Your task to perform on an android device: open app "WhatsApp Messenger" (install if not already installed) Image 0: 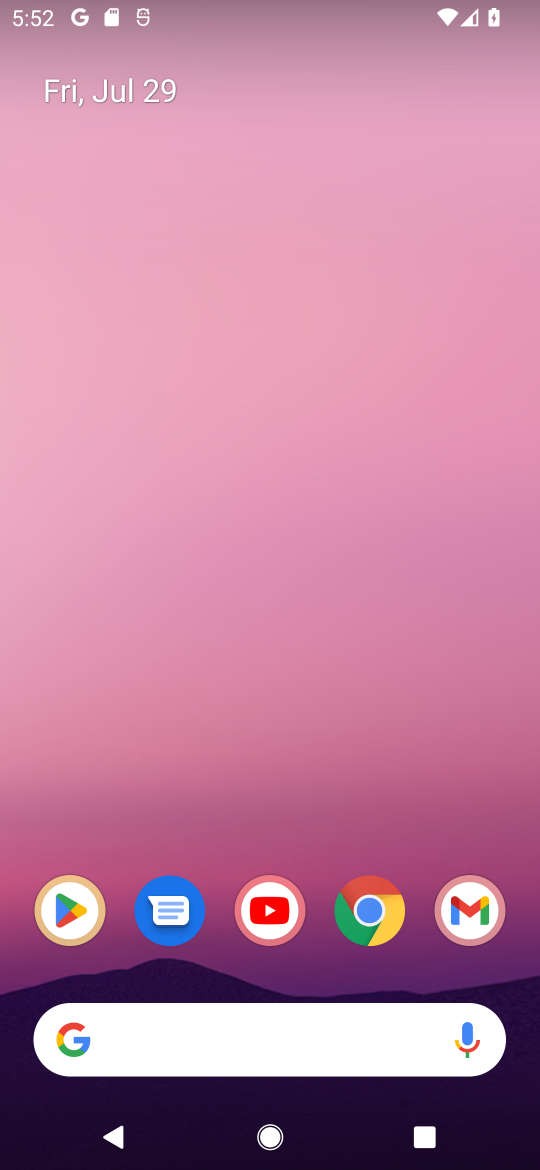
Step 0: click (86, 911)
Your task to perform on an android device: open app "WhatsApp Messenger" (install if not already installed) Image 1: 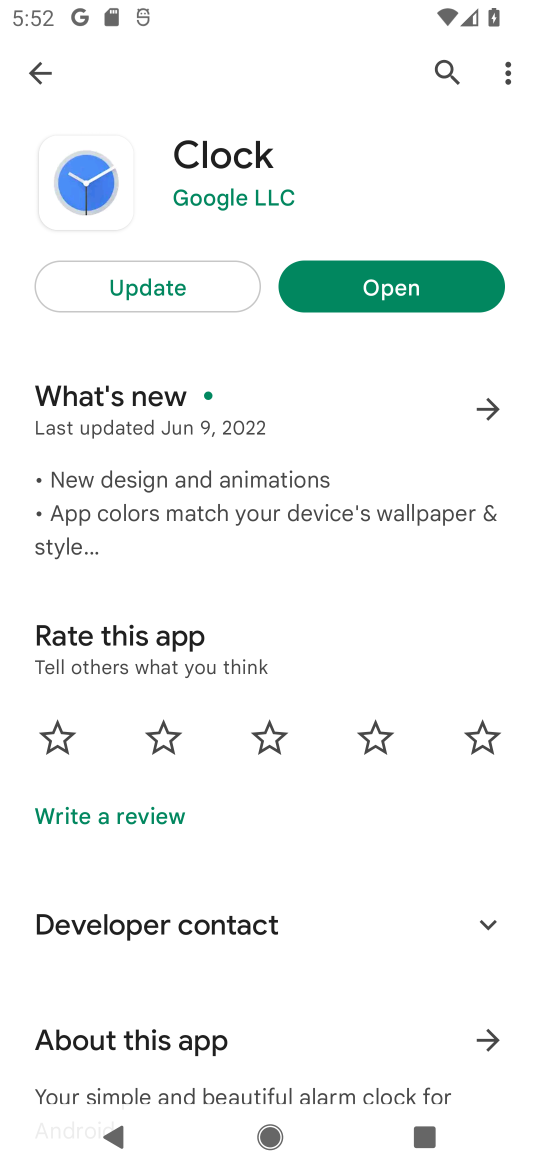
Step 1: click (443, 67)
Your task to perform on an android device: open app "WhatsApp Messenger" (install if not already installed) Image 2: 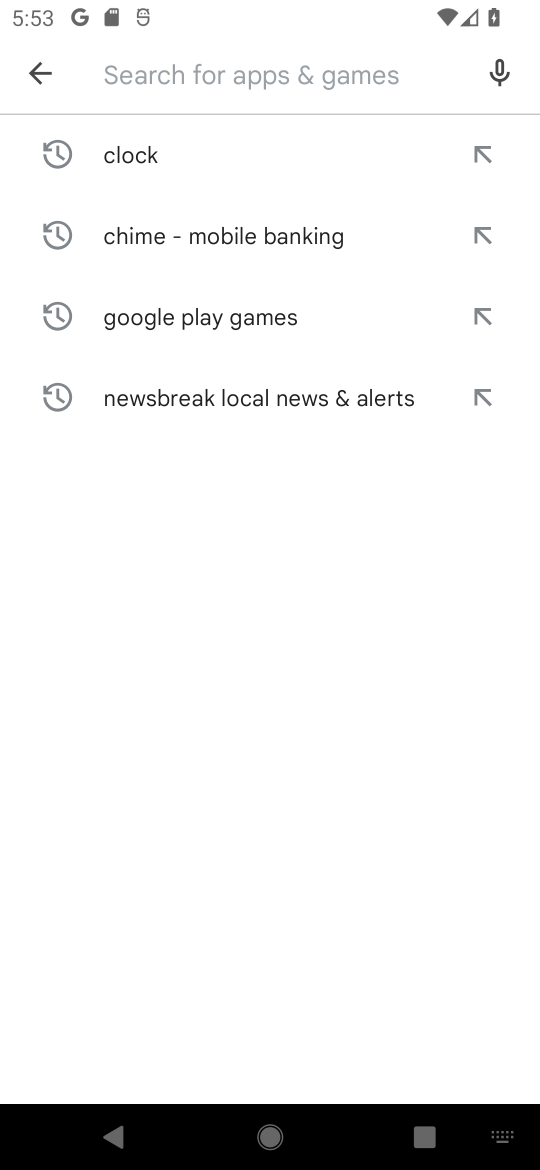
Step 2: type "whatsapp messenger"
Your task to perform on an android device: open app "WhatsApp Messenger" (install if not already installed) Image 3: 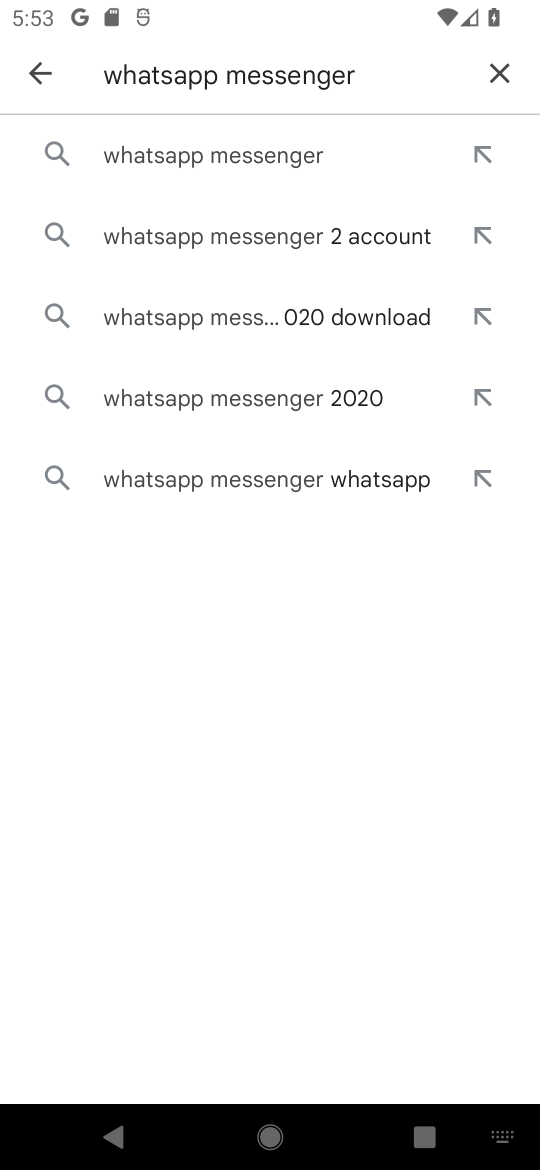
Step 3: click (286, 141)
Your task to perform on an android device: open app "WhatsApp Messenger" (install if not already installed) Image 4: 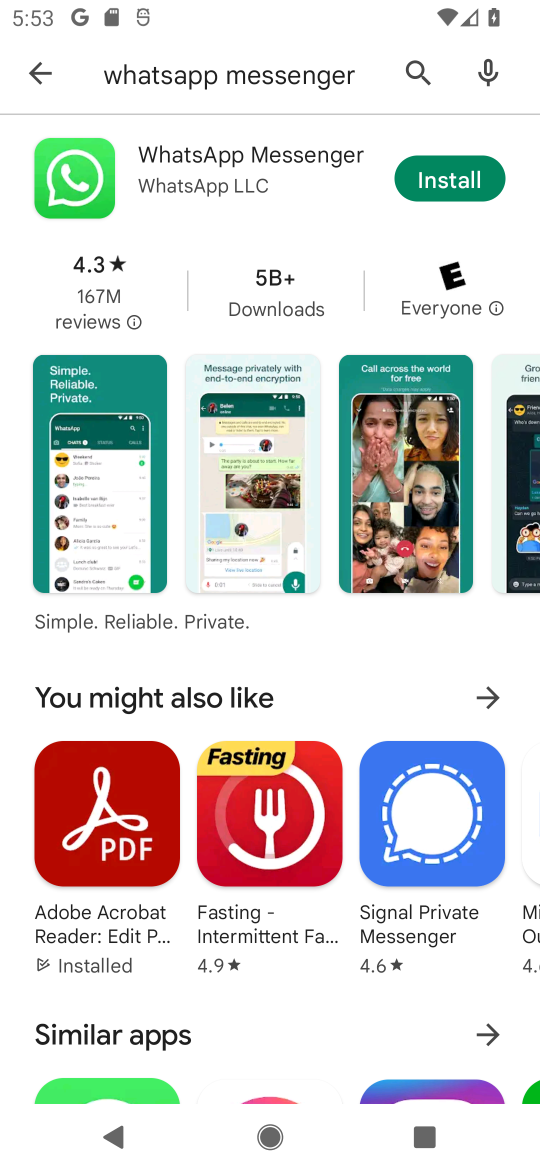
Step 4: click (286, 141)
Your task to perform on an android device: open app "WhatsApp Messenger" (install if not already installed) Image 5: 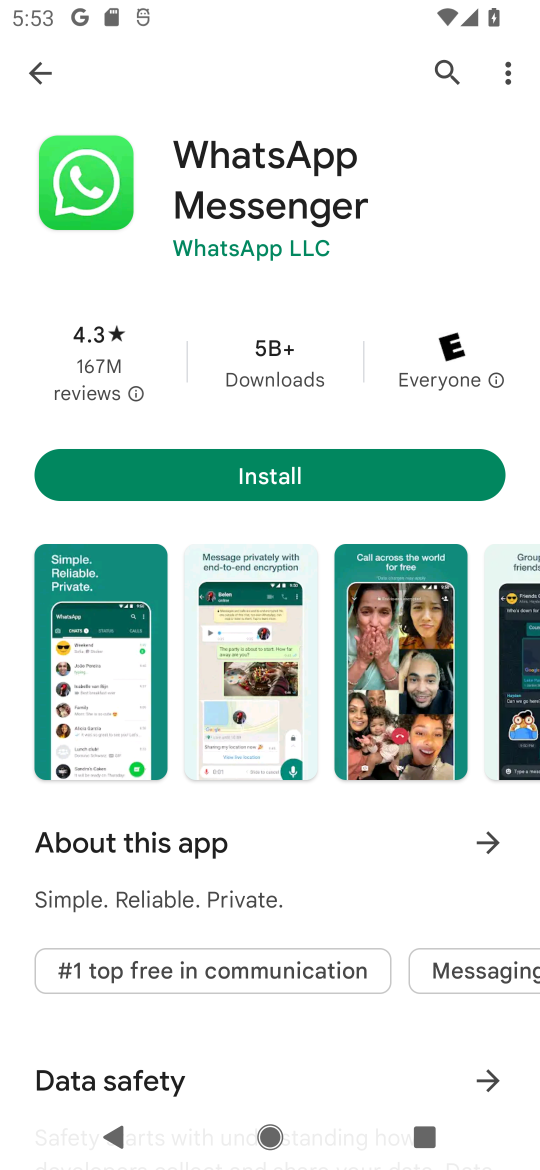
Step 5: click (188, 474)
Your task to perform on an android device: open app "WhatsApp Messenger" (install if not already installed) Image 6: 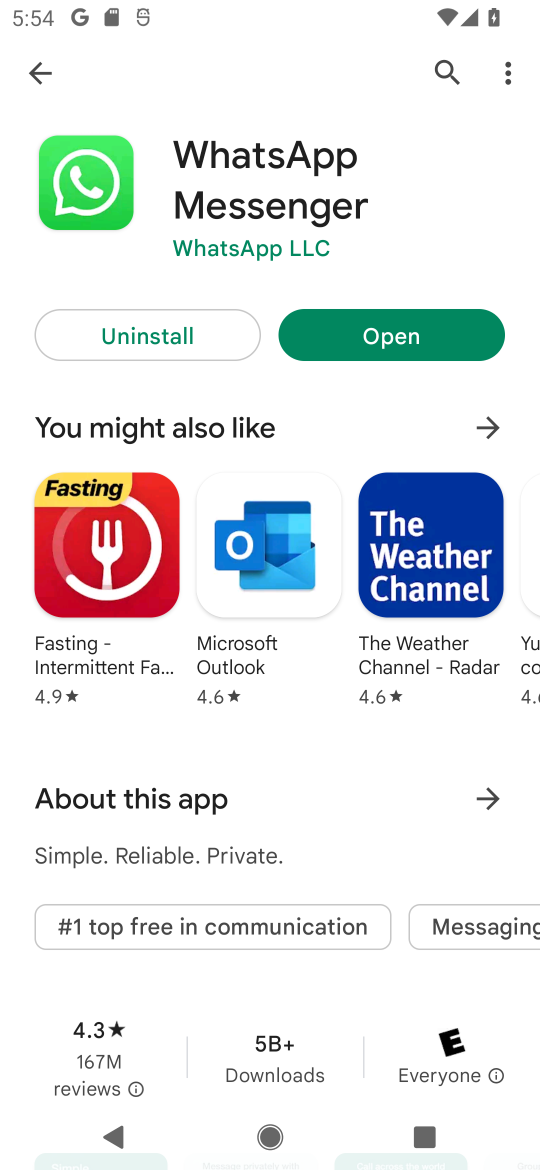
Step 6: click (388, 340)
Your task to perform on an android device: open app "WhatsApp Messenger" (install if not already installed) Image 7: 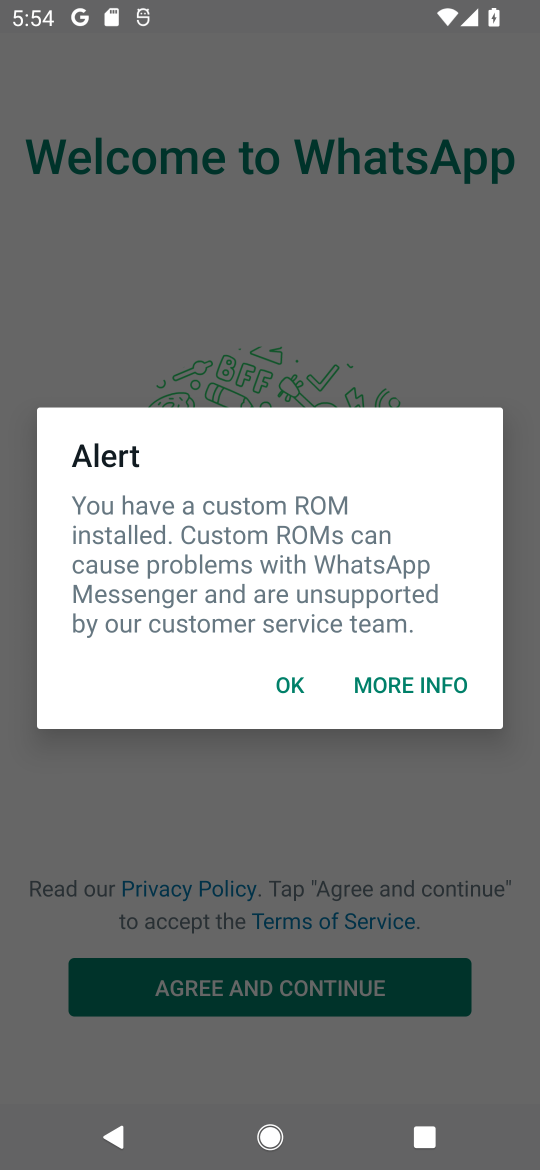
Step 7: task complete